Your task to perform on an android device: turn smart compose on in the gmail app Image 0: 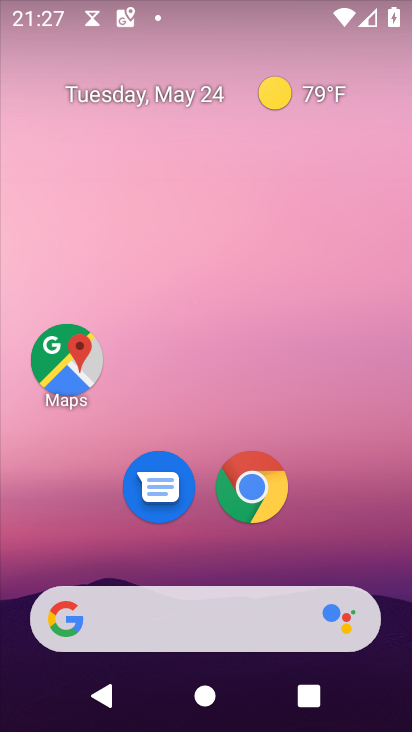
Step 0: press home button
Your task to perform on an android device: turn smart compose on in the gmail app Image 1: 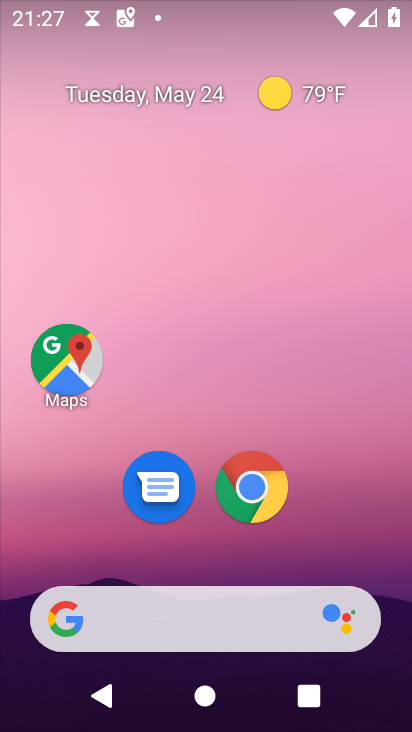
Step 1: drag from (366, 551) to (334, 212)
Your task to perform on an android device: turn smart compose on in the gmail app Image 2: 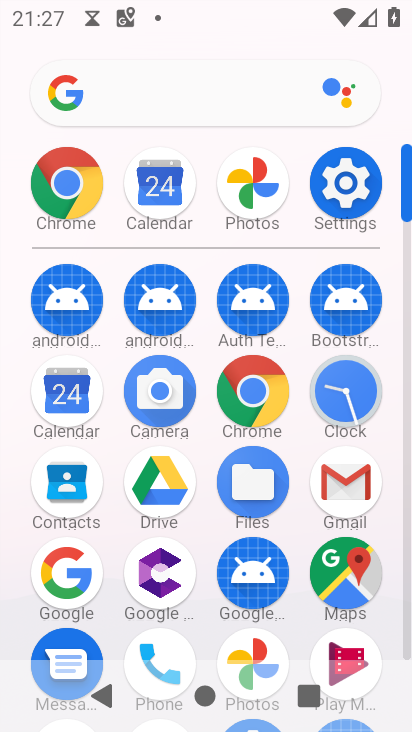
Step 2: click (374, 497)
Your task to perform on an android device: turn smart compose on in the gmail app Image 3: 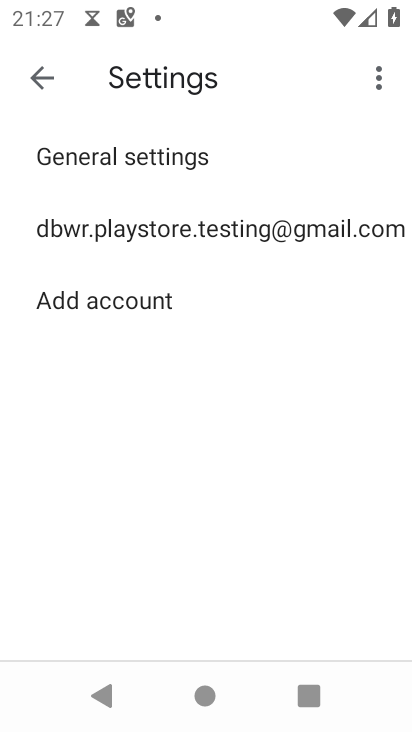
Step 3: click (337, 218)
Your task to perform on an android device: turn smart compose on in the gmail app Image 4: 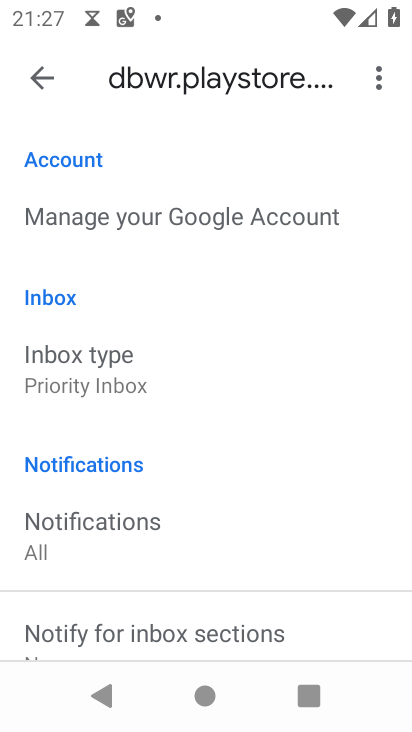
Step 4: task complete